Your task to perform on an android device: add a contact Image 0: 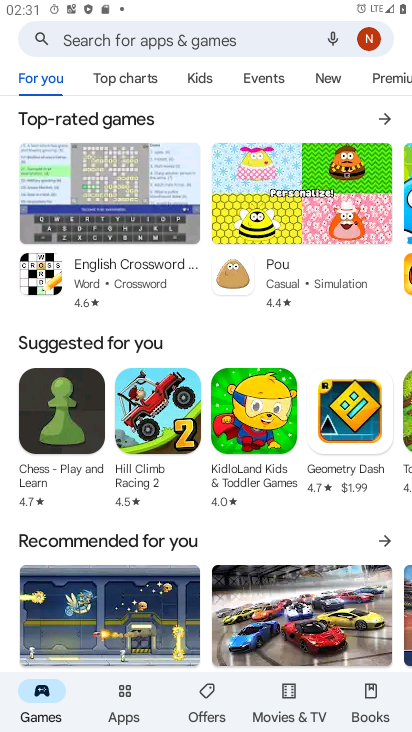
Step 0: press home button
Your task to perform on an android device: add a contact Image 1: 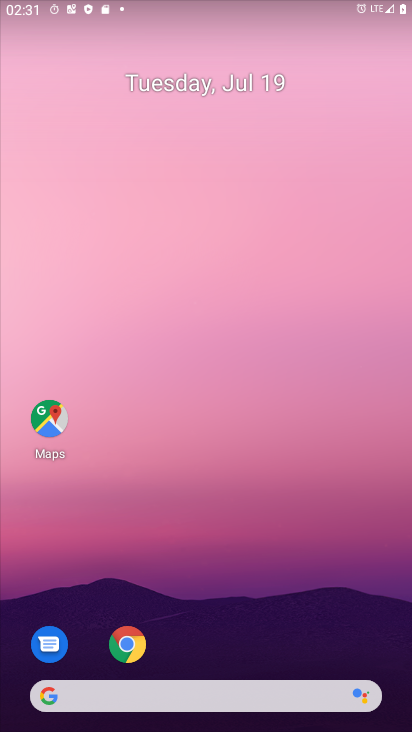
Step 1: drag from (216, 728) to (216, 151)
Your task to perform on an android device: add a contact Image 2: 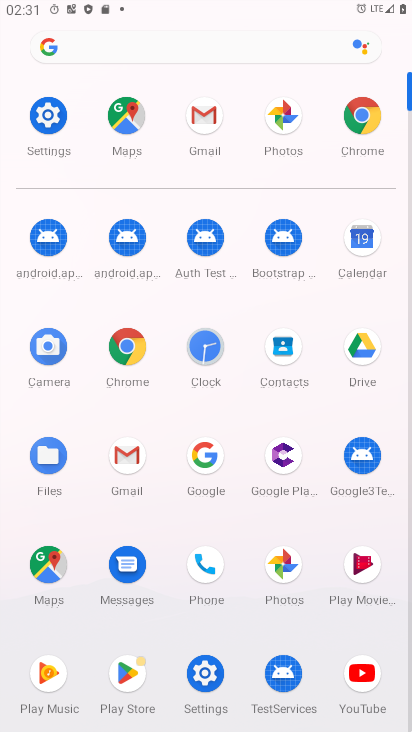
Step 2: click (283, 349)
Your task to perform on an android device: add a contact Image 3: 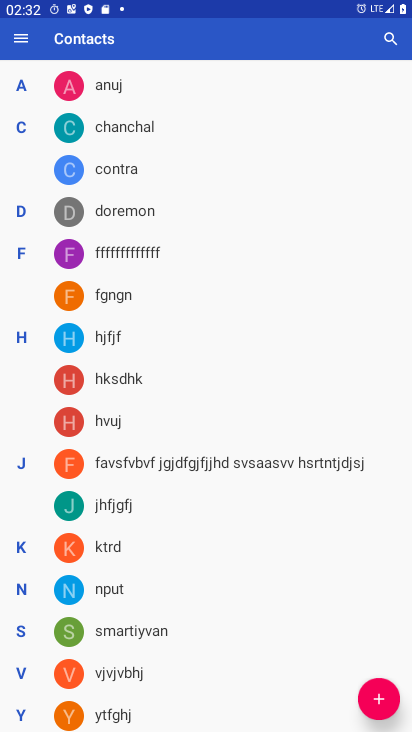
Step 3: click (380, 701)
Your task to perform on an android device: add a contact Image 4: 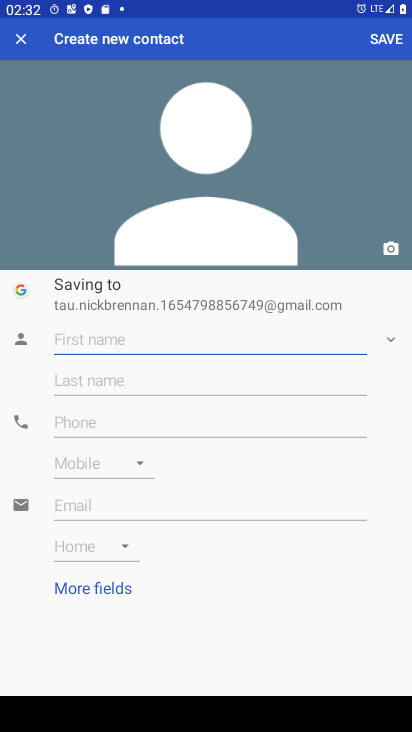
Step 4: type "shree ram"
Your task to perform on an android device: add a contact Image 5: 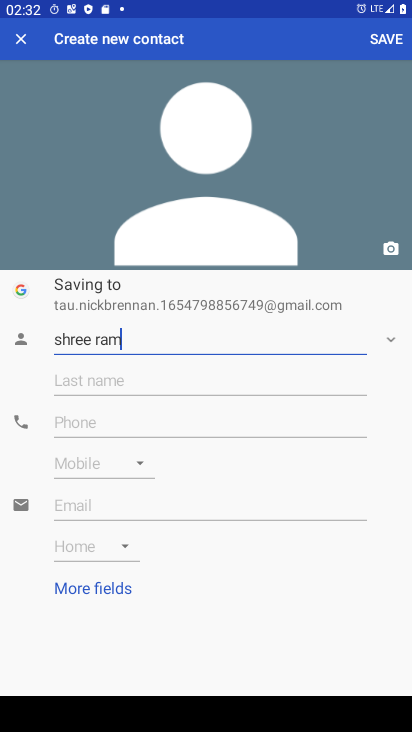
Step 5: click (100, 419)
Your task to perform on an android device: add a contact Image 6: 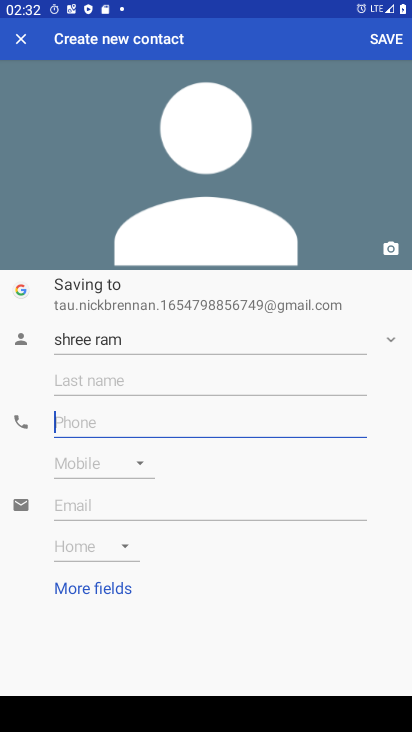
Step 6: type "878765"
Your task to perform on an android device: add a contact Image 7: 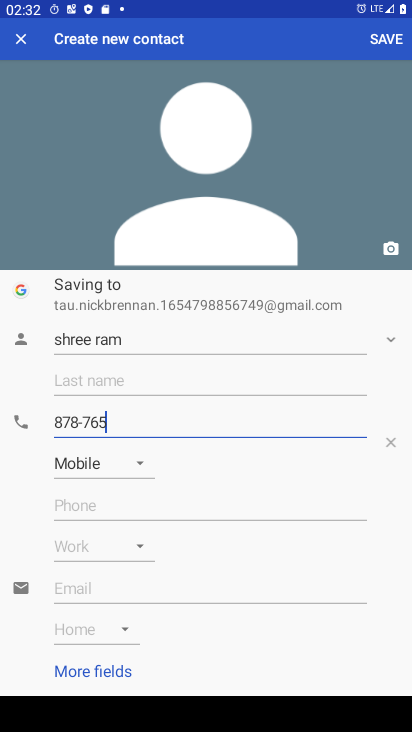
Step 7: click (378, 38)
Your task to perform on an android device: add a contact Image 8: 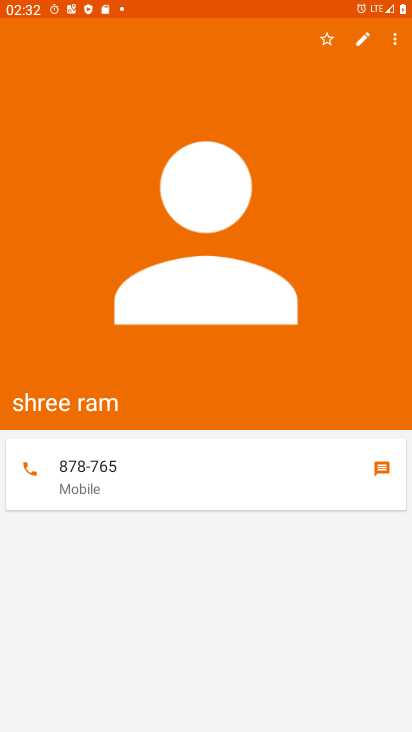
Step 8: task complete